Your task to perform on an android device: turn off sleep mode Image 0: 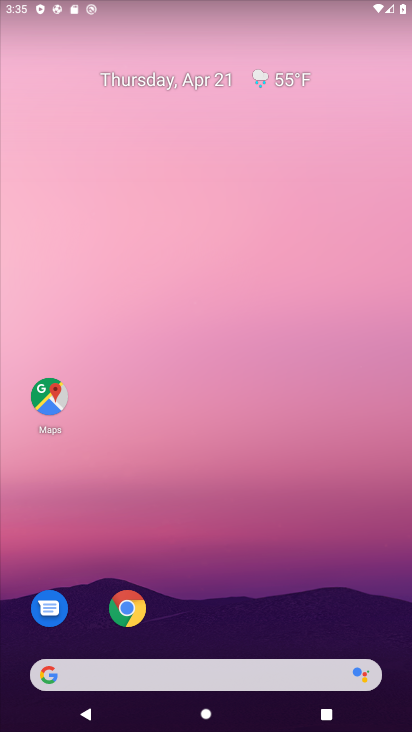
Step 0: click (248, 561)
Your task to perform on an android device: turn off sleep mode Image 1: 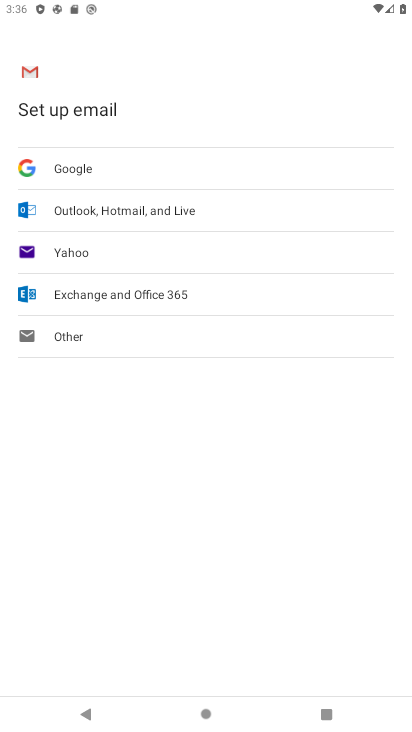
Step 1: press home button
Your task to perform on an android device: turn off sleep mode Image 2: 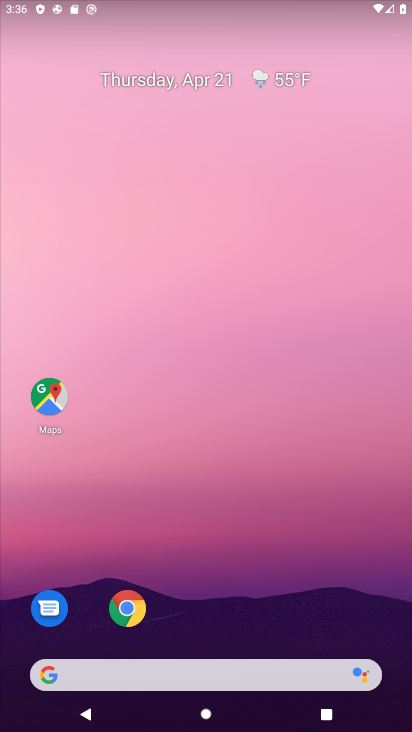
Step 2: drag from (270, 581) to (261, 157)
Your task to perform on an android device: turn off sleep mode Image 3: 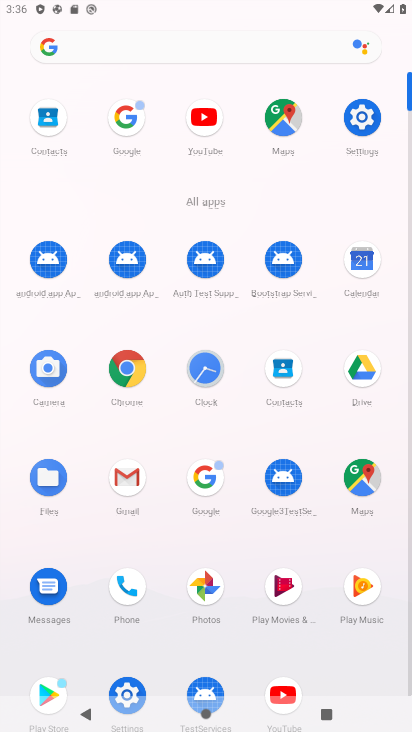
Step 3: click (378, 128)
Your task to perform on an android device: turn off sleep mode Image 4: 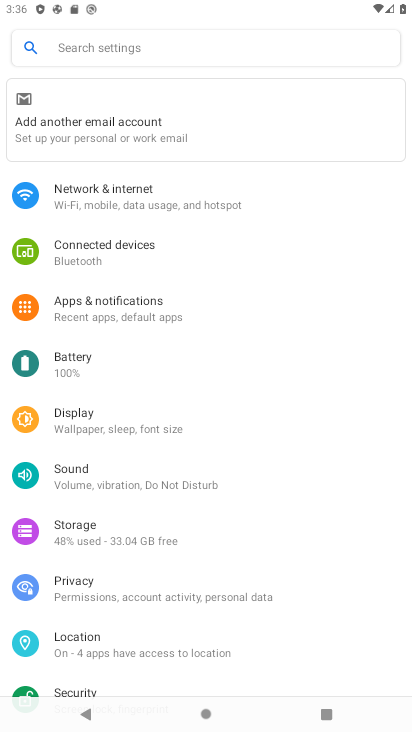
Step 4: click (143, 428)
Your task to perform on an android device: turn off sleep mode Image 5: 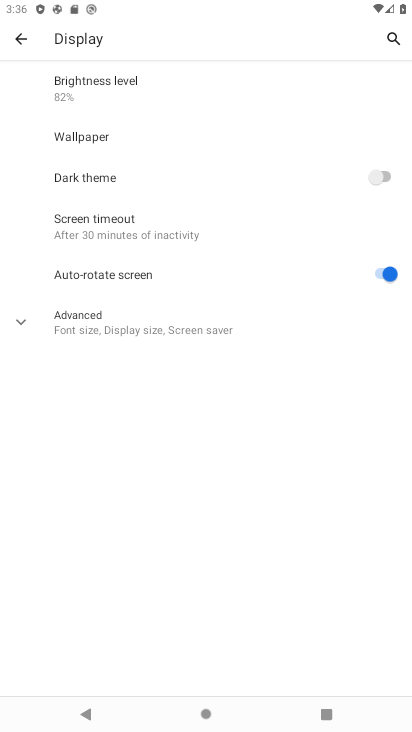
Step 5: click (129, 326)
Your task to perform on an android device: turn off sleep mode Image 6: 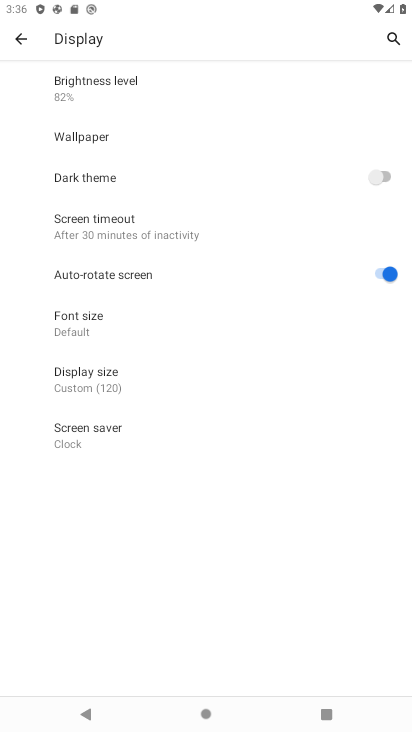
Step 6: task complete